Your task to perform on an android device: set the timer Image 0: 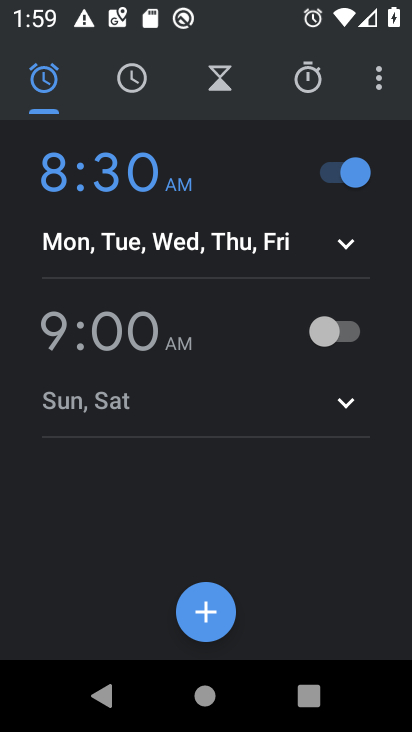
Step 0: click (227, 74)
Your task to perform on an android device: set the timer Image 1: 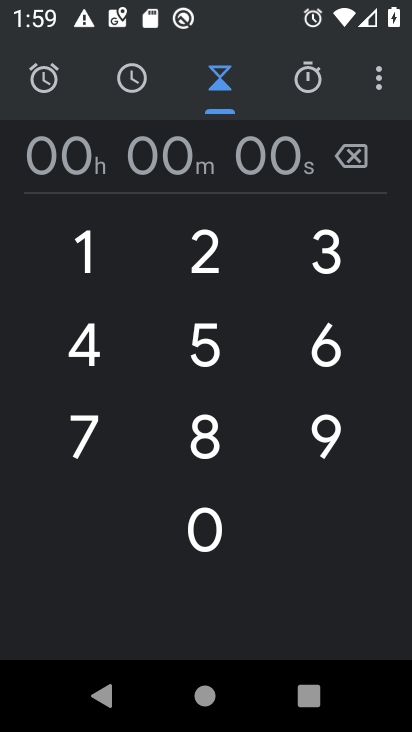
Step 1: click (208, 274)
Your task to perform on an android device: set the timer Image 2: 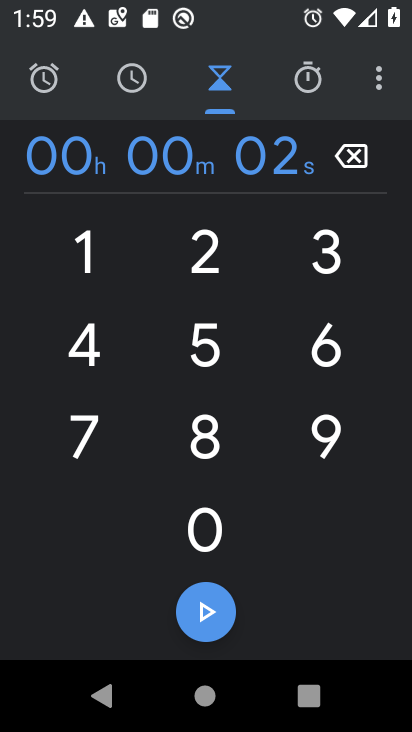
Step 2: click (321, 248)
Your task to perform on an android device: set the timer Image 3: 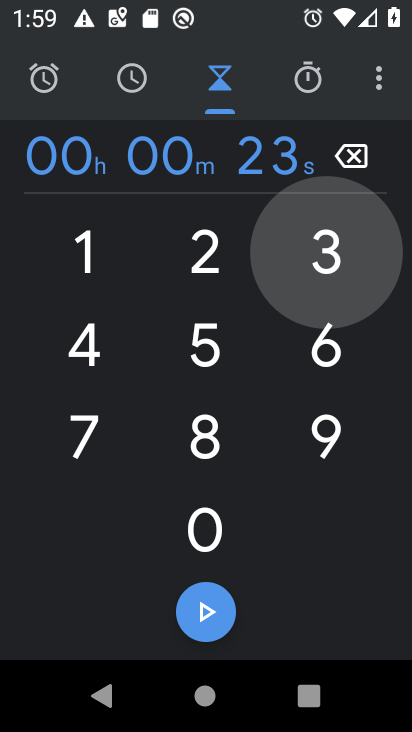
Step 3: click (194, 356)
Your task to perform on an android device: set the timer Image 4: 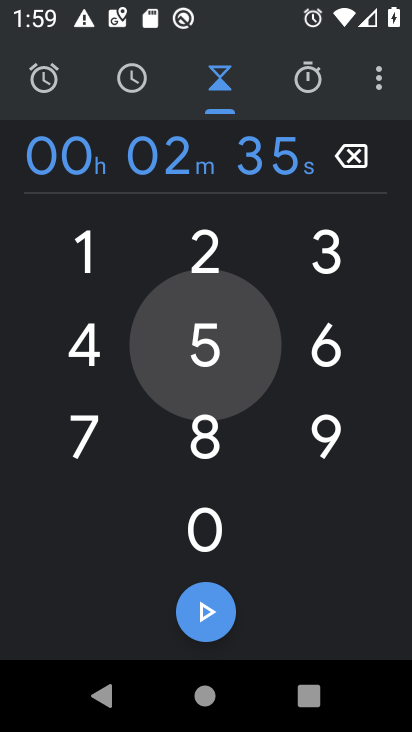
Step 4: click (305, 345)
Your task to perform on an android device: set the timer Image 5: 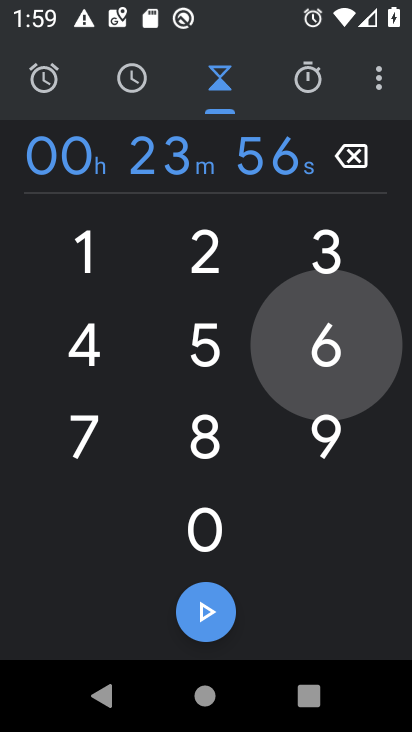
Step 5: click (215, 418)
Your task to perform on an android device: set the timer Image 6: 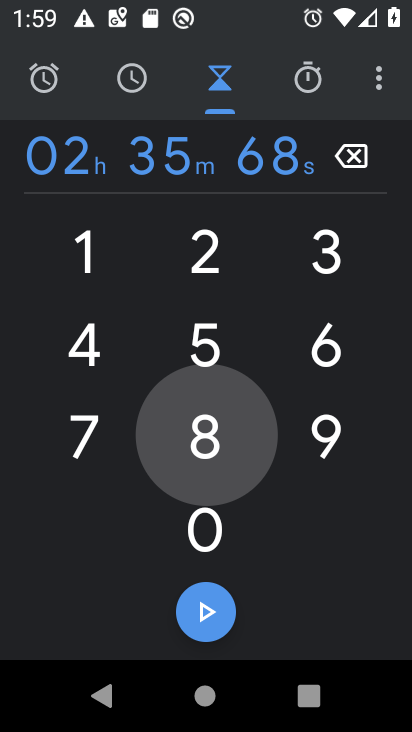
Step 6: click (342, 438)
Your task to perform on an android device: set the timer Image 7: 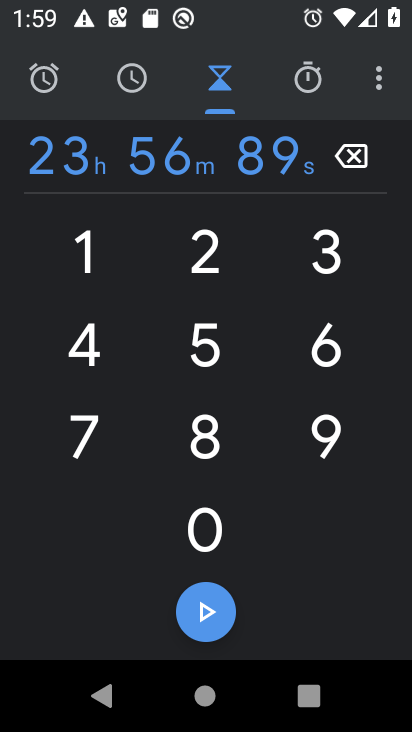
Step 7: click (184, 597)
Your task to perform on an android device: set the timer Image 8: 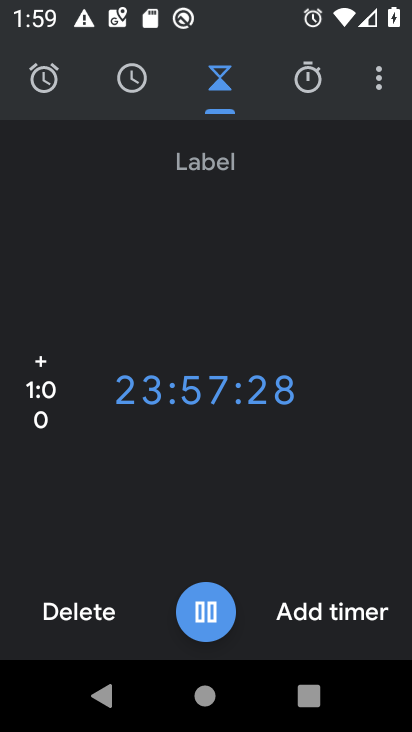
Step 8: task complete